Your task to perform on an android device: Go to internet settings Image 0: 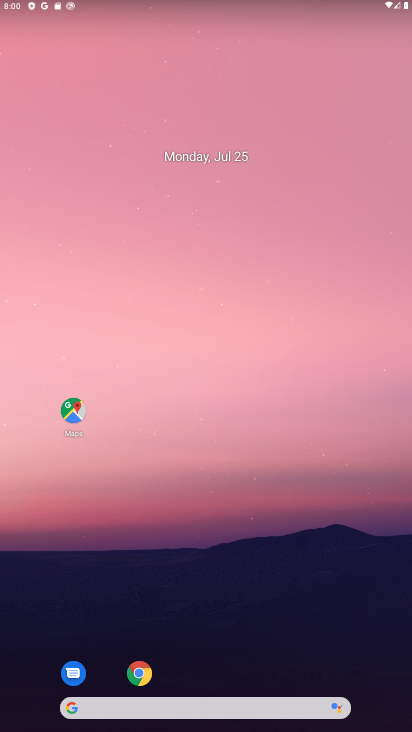
Step 0: drag from (259, 660) to (265, 25)
Your task to perform on an android device: Go to internet settings Image 1: 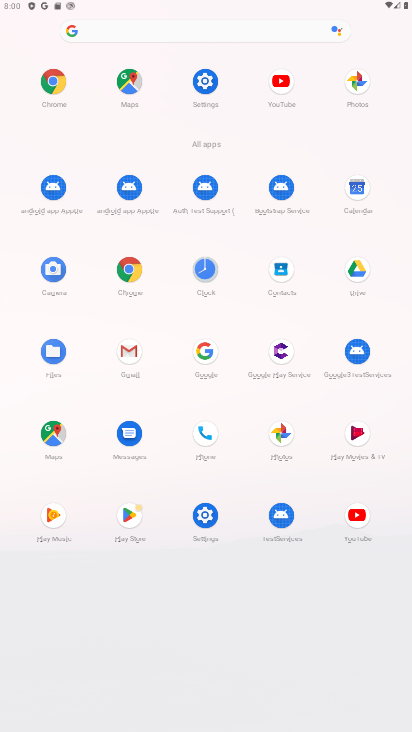
Step 1: click (211, 532)
Your task to perform on an android device: Go to internet settings Image 2: 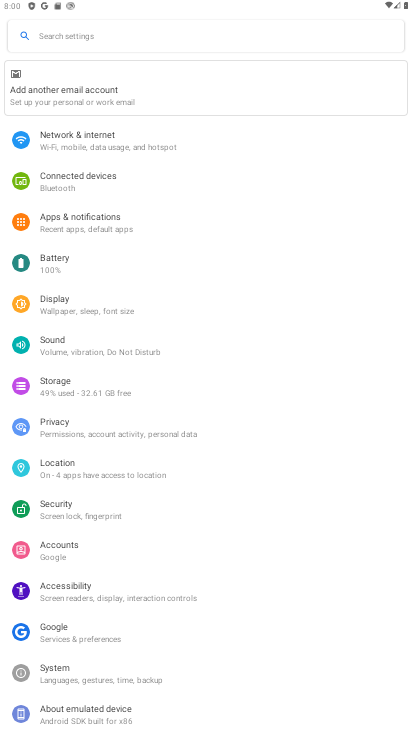
Step 2: click (108, 151)
Your task to perform on an android device: Go to internet settings Image 3: 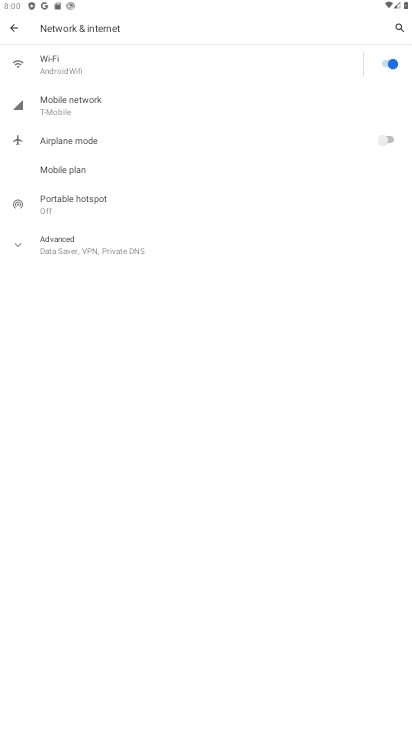
Step 3: task complete